Your task to perform on an android device: Open Chrome and go to the settings page Image 0: 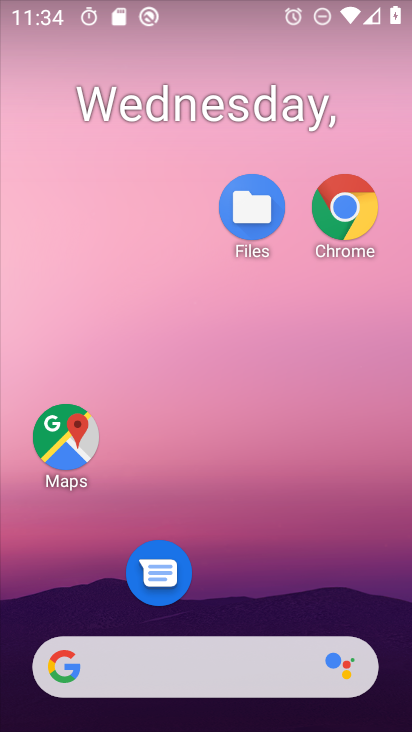
Step 0: drag from (313, 692) to (295, 225)
Your task to perform on an android device: Open Chrome and go to the settings page Image 1: 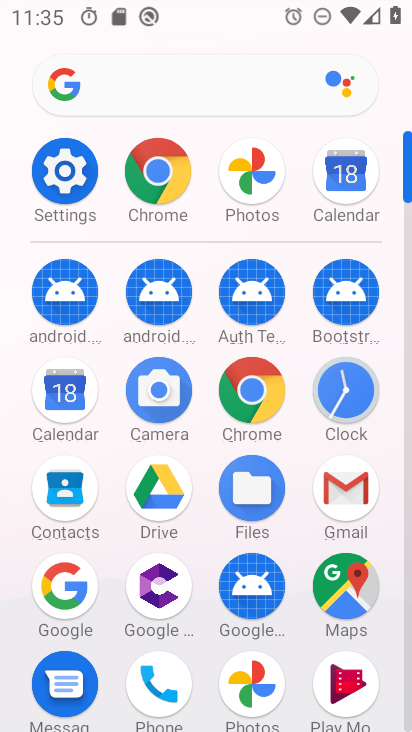
Step 1: click (186, 178)
Your task to perform on an android device: Open Chrome and go to the settings page Image 2: 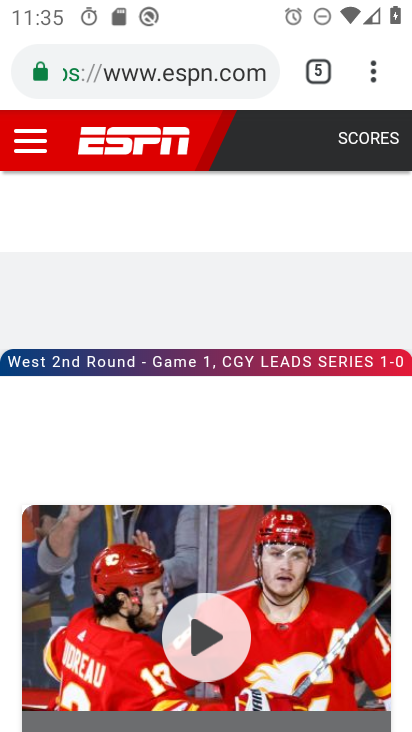
Step 2: click (375, 64)
Your task to perform on an android device: Open Chrome and go to the settings page Image 3: 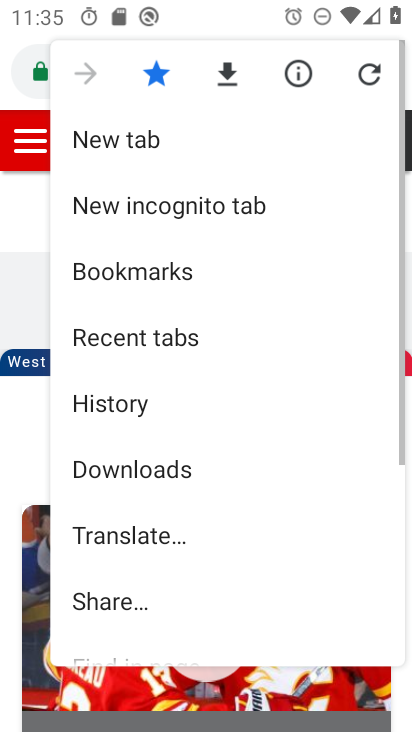
Step 3: drag from (220, 399) to (234, 172)
Your task to perform on an android device: Open Chrome and go to the settings page Image 4: 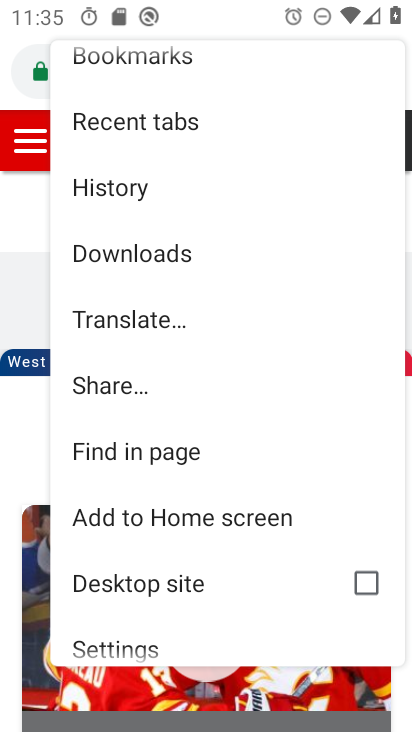
Step 4: drag from (126, 608) to (159, 495)
Your task to perform on an android device: Open Chrome and go to the settings page Image 5: 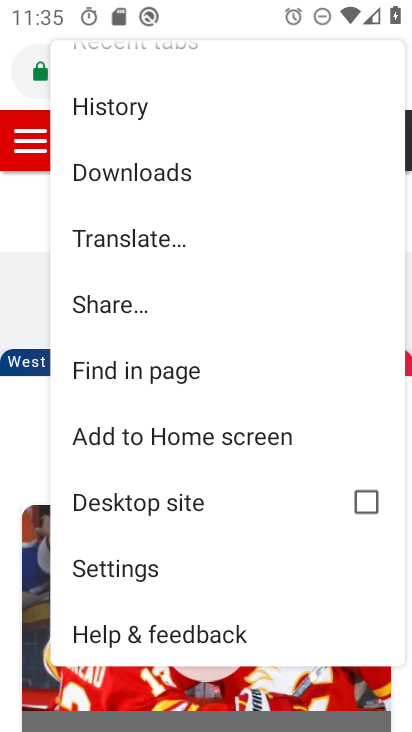
Step 5: click (154, 570)
Your task to perform on an android device: Open Chrome and go to the settings page Image 6: 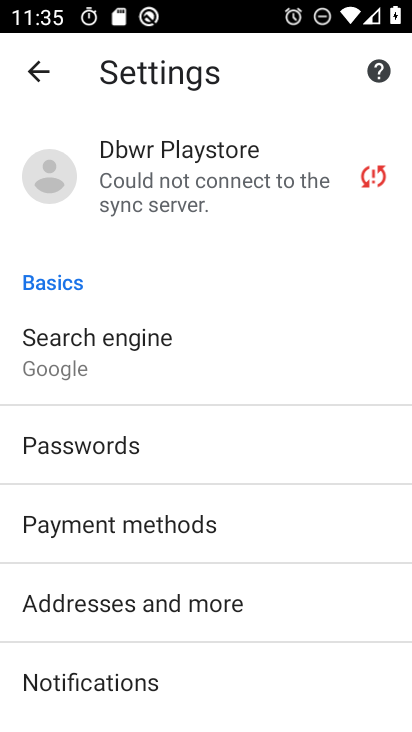
Step 6: task complete